Your task to perform on an android device: find photos in the google photos app Image 0: 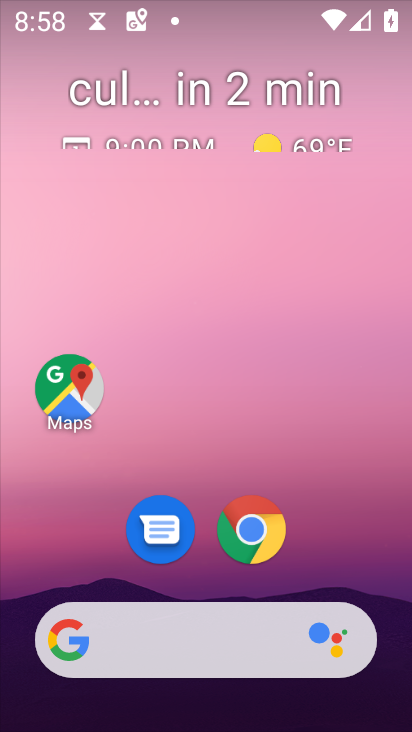
Step 0: drag from (343, 550) to (338, 90)
Your task to perform on an android device: find photos in the google photos app Image 1: 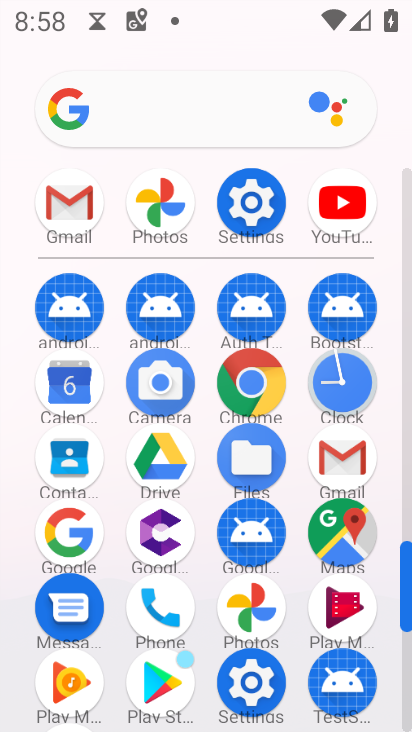
Step 1: click (245, 601)
Your task to perform on an android device: find photos in the google photos app Image 2: 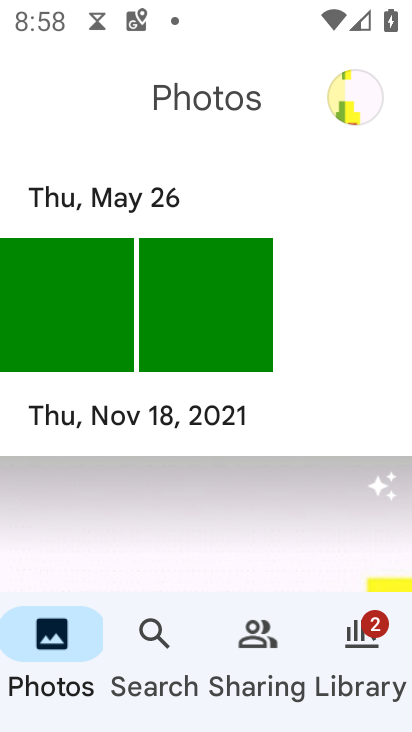
Step 2: task complete